Your task to perform on an android device: Open the stopwatch Image 0: 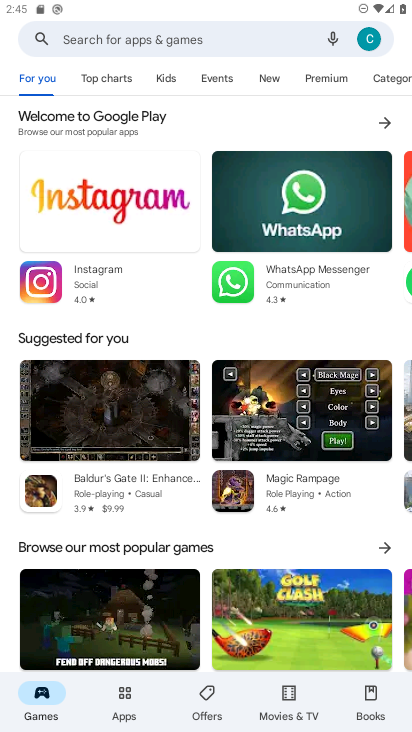
Step 0: press home button
Your task to perform on an android device: Open the stopwatch Image 1: 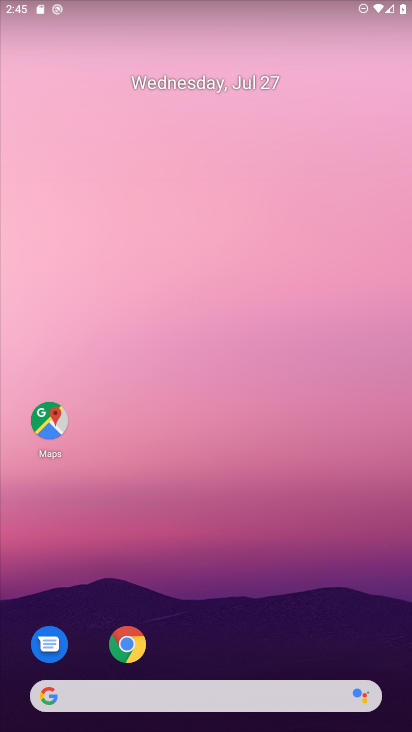
Step 1: drag from (227, 650) to (282, 142)
Your task to perform on an android device: Open the stopwatch Image 2: 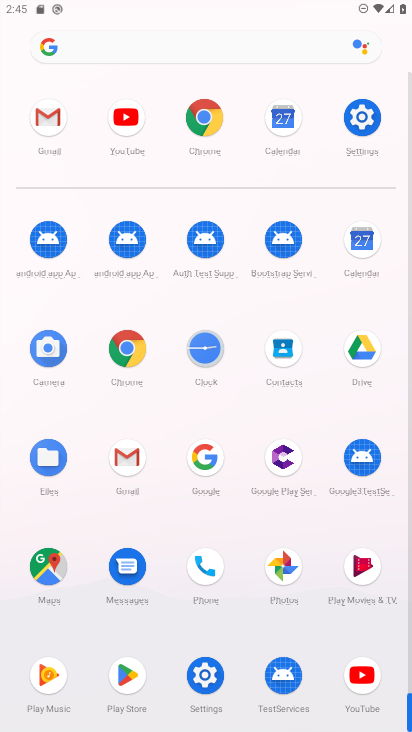
Step 2: click (216, 366)
Your task to perform on an android device: Open the stopwatch Image 3: 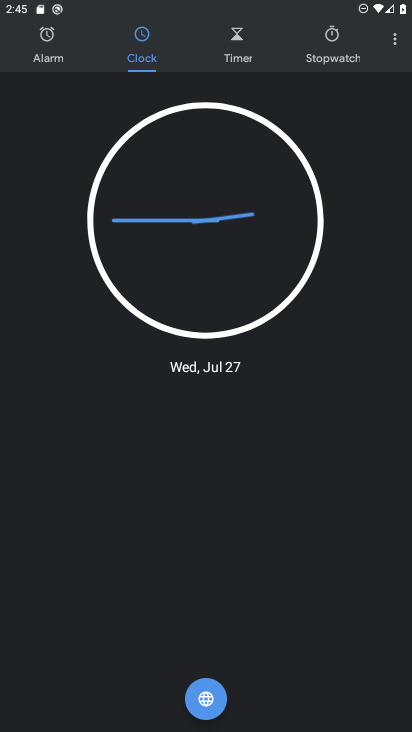
Step 3: click (341, 54)
Your task to perform on an android device: Open the stopwatch Image 4: 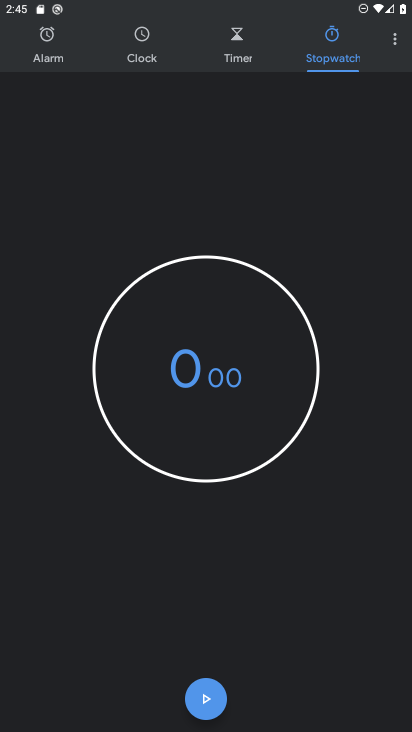
Step 4: click (199, 708)
Your task to perform on an android device: Open the stopwatch Image 5: 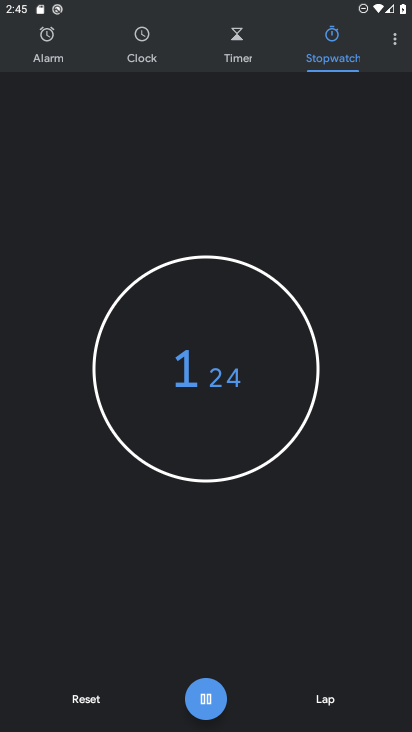
Step 5: task complete